Your task to perform on an android device: turn off picture-in-picture Image 0: 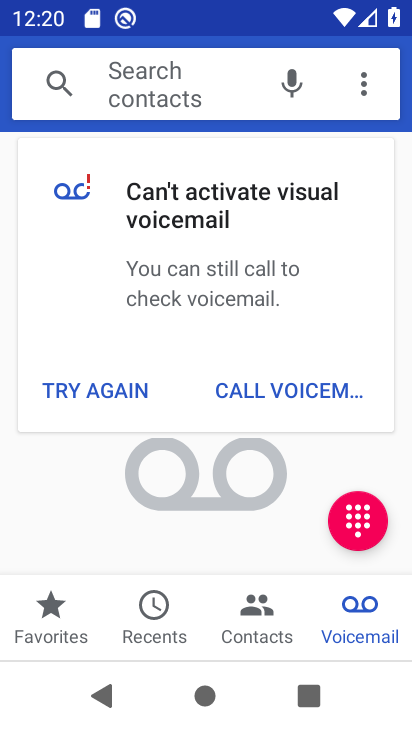
Step 0: press home button
Your task to perform on an android device: turn off picture-in-picture Image 1: 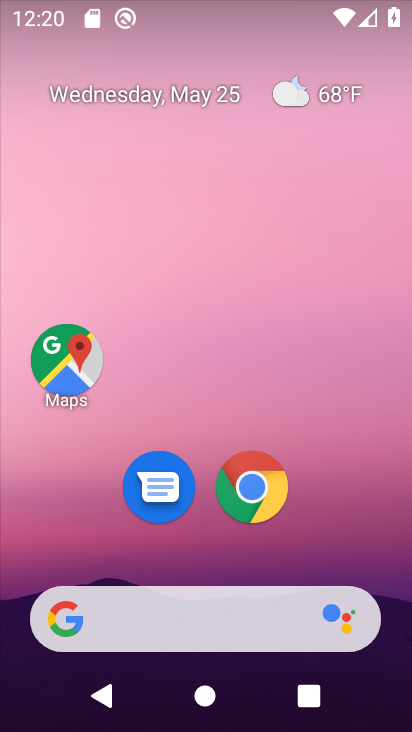
Step 1: drag from (202, 564) to (273, 17)
Your task to perform on an android device: turn off picture-in-picture Image 2: 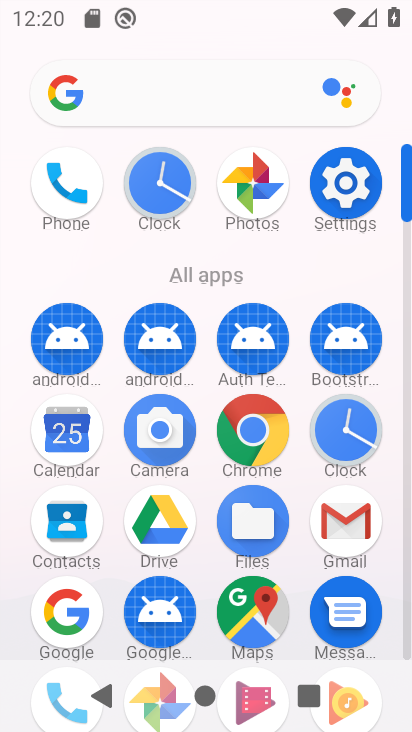
Step 2: click (344, 162)
Your task to perform on an android device: turn off picture-in-picture Image 3: 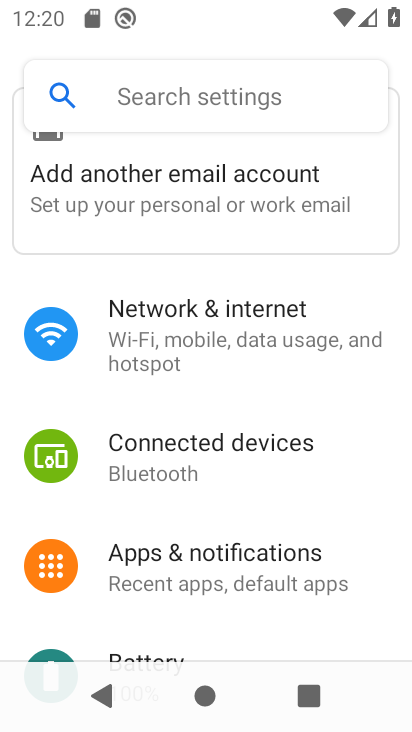
Step 3: click (242, 568)
Your task to perform on an android device: turn off picture-in-picture Image 4: 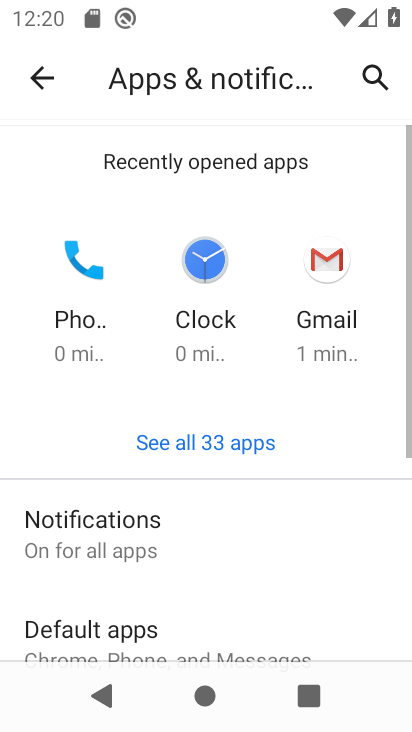
Step 4: drag from (176, 615) to (258, 29)
Your task to perform on an android device: turn off picture-in-picture Image 5: 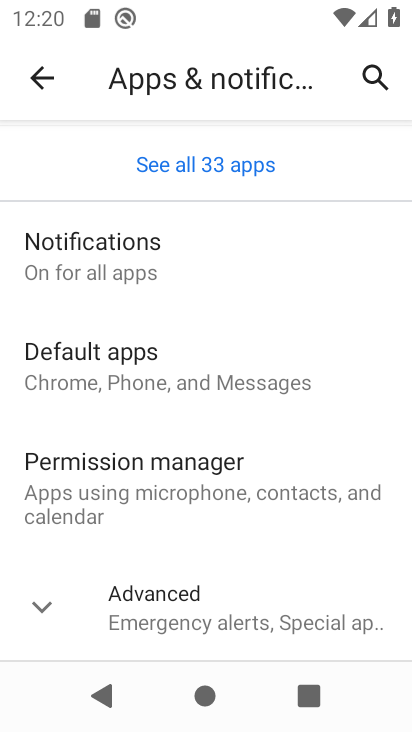
Step 5: click (186, 628)
Your task to perform on an android device: turn off picture-in-picture Image 6: 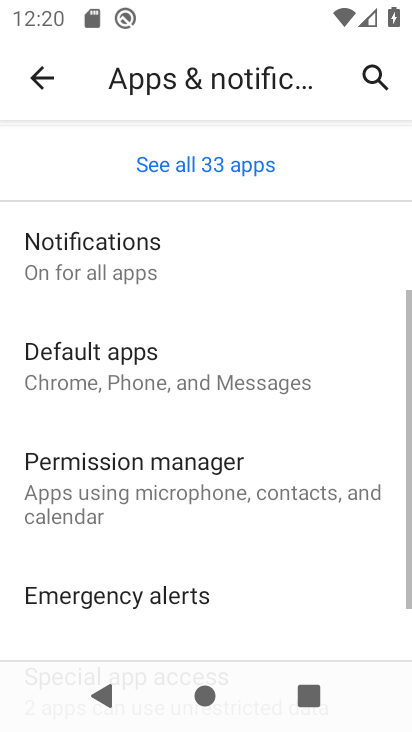
Step 6: drag from (211, 599) to (322, 8)
Your task to perform on an android device: turn off picture-in-picture Image 7: 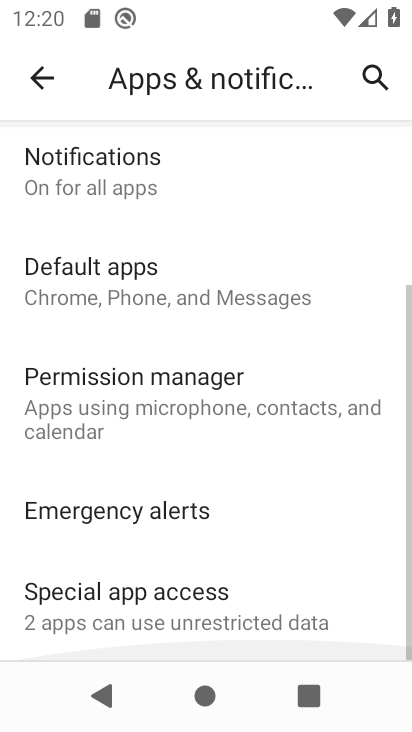
Step 7: click (95, 600)
Your task to perform on an android device: turn off picture-in-picture Image 8: 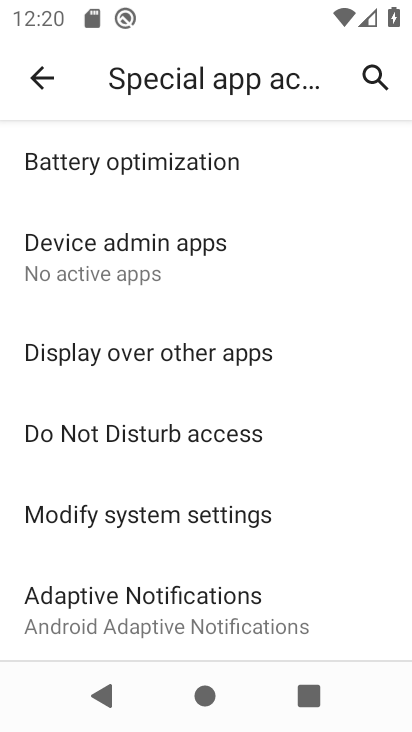
Step 8: drag from (132, 572) to (204, 110)
Your task to perform on an android device: turn off picture-in-picture Image 9: 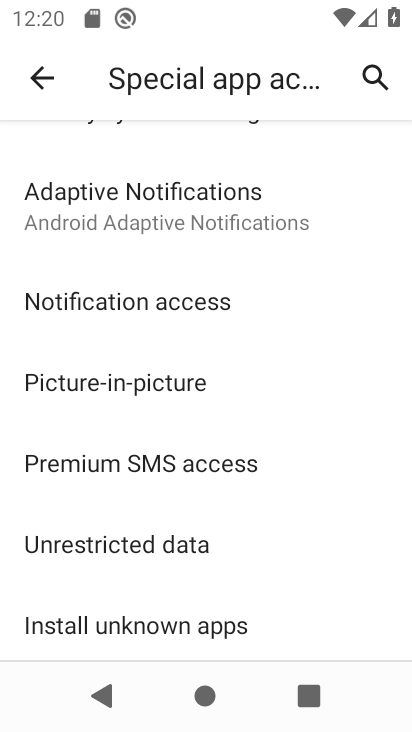
Step 9: click (119, 376)
Your task to perform on an android device: turn off picture-in-picture Image 10: 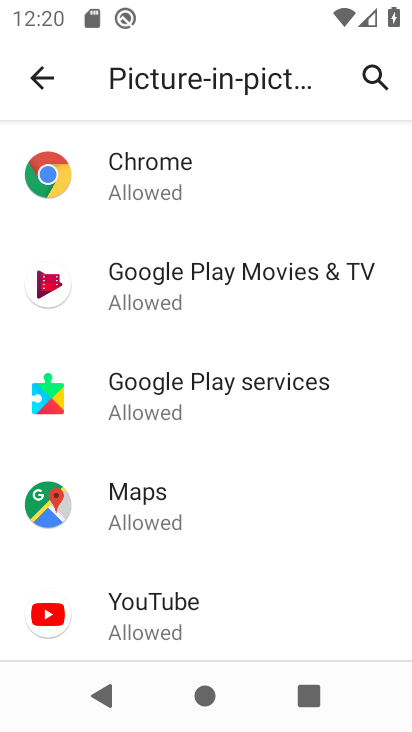
Step 10: click (140, 185)
Your task to perform on an android device: turn off picture-in-picture Image 11: 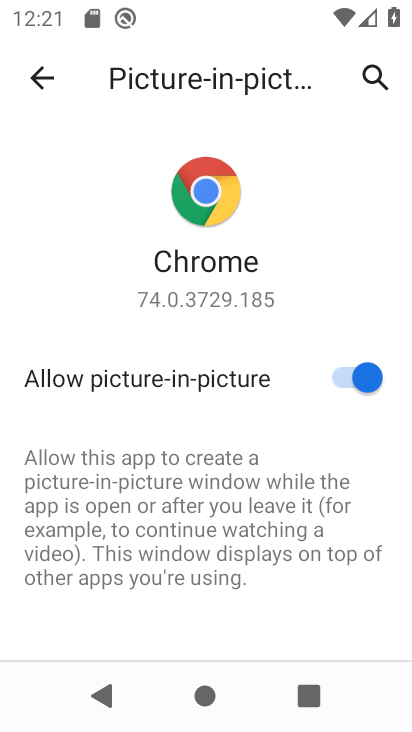
Step 11: click (365, 372)
Your task to perform on an android device: turn off picture-in-picture Image 12: 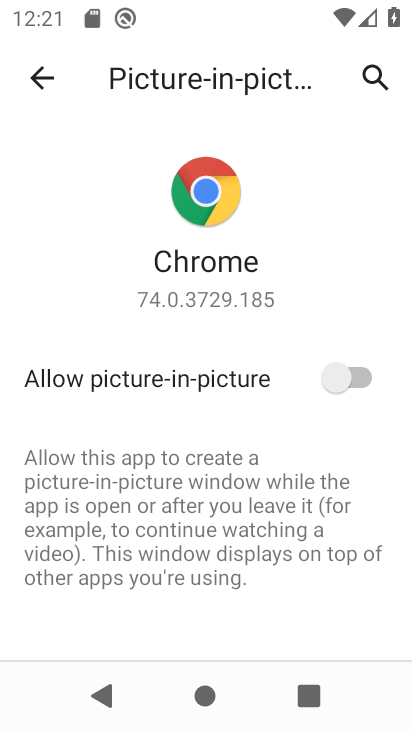
Step 12: task complete